Your task to perform on an android device: View the shopping cart on walmart.com. Search for logitech g933 on walmart.com, select the first entry, add it to the cart, then select checkout. Image 0: 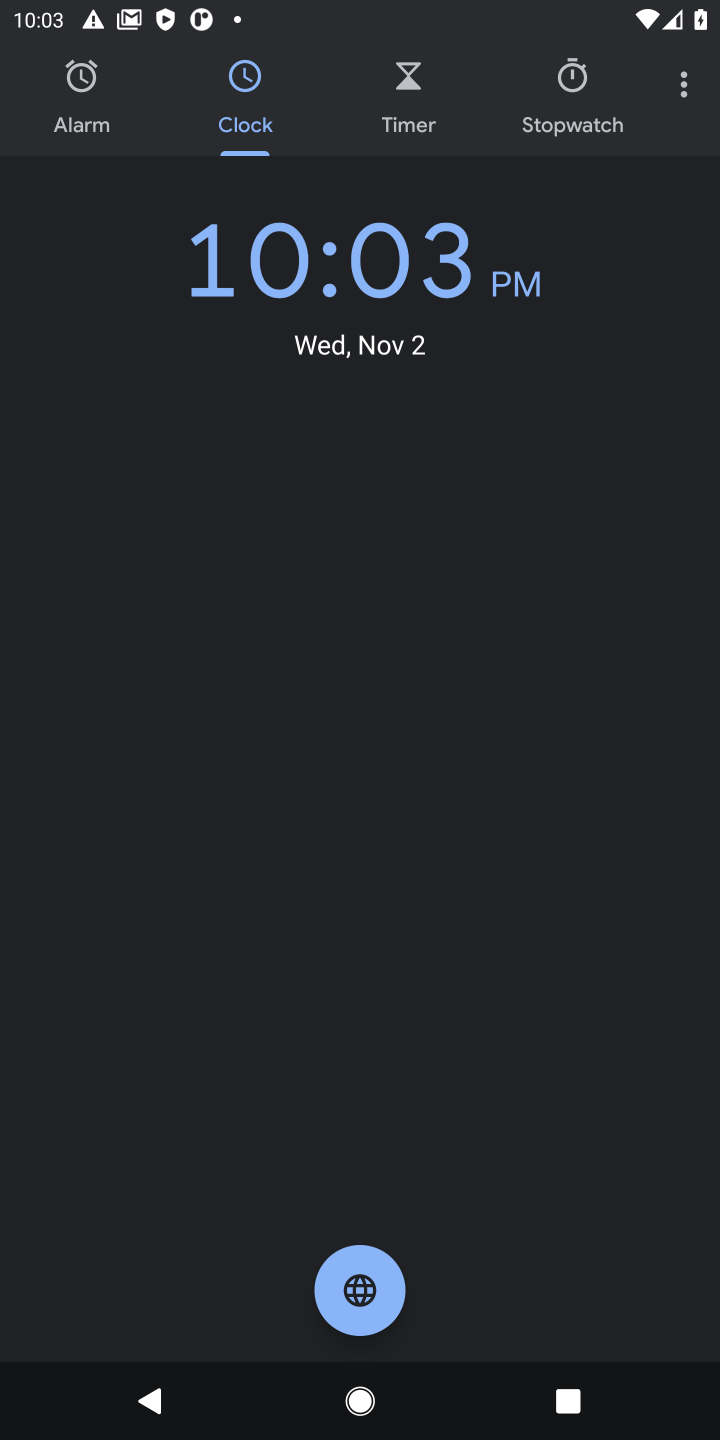
Step 0: press home button
Your task to perform on an android device: View the shopping cart on walmart.com. Search for logitech g933 on walmart.com, select the first entry, add it to the cart, then select checkout. Image 1: 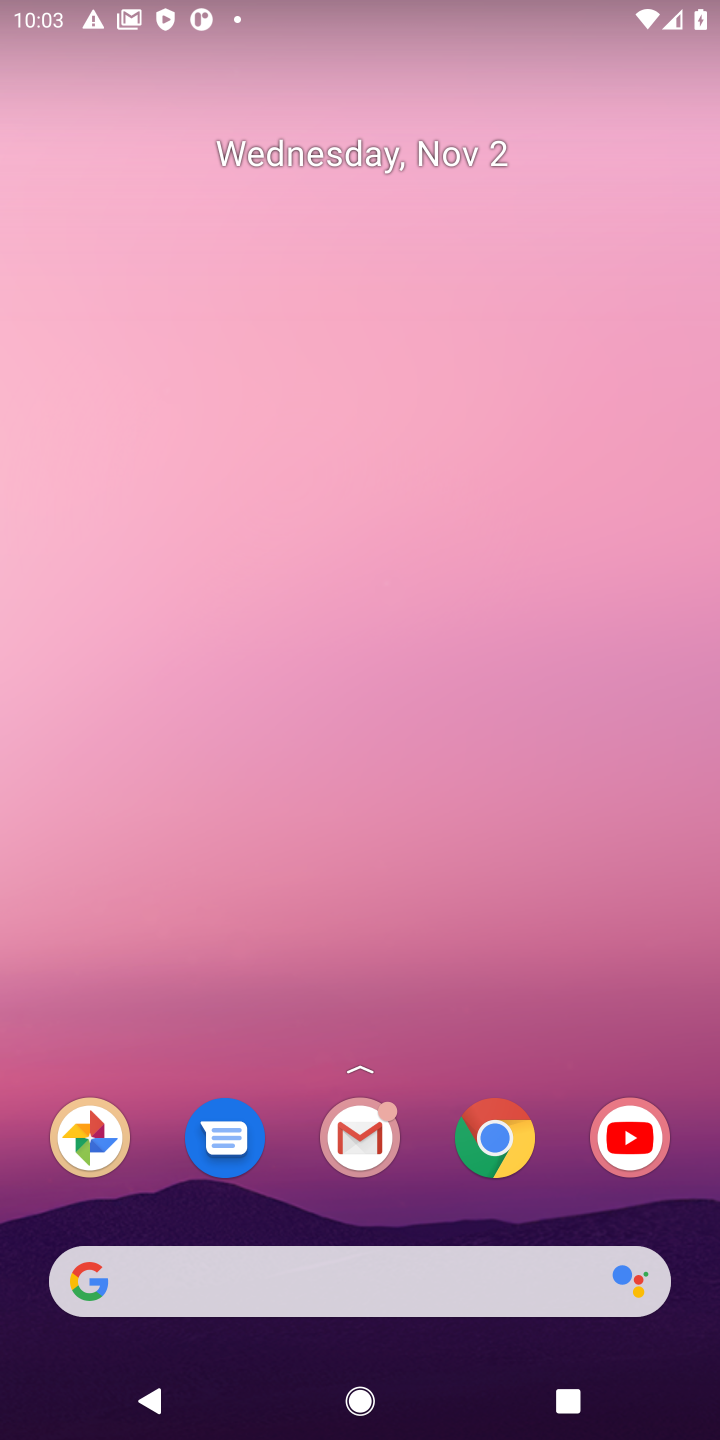
Step 1: click (311, 1267)
Your task to perform on an android device: View the shopping cart on walmart.com. Search for logitech g933 on walmart.com, select the first entry, add it to the cart, then select checkout. Image 2: 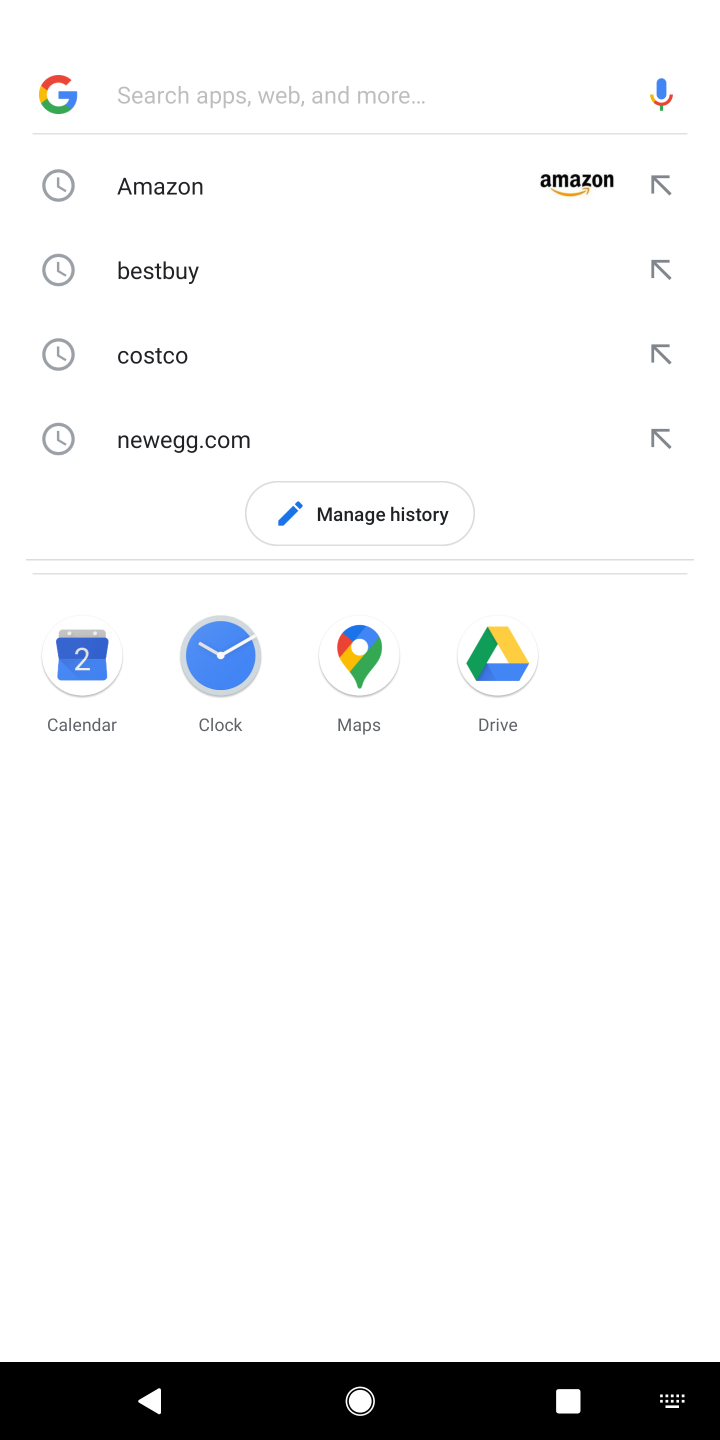
Step 2: type "walmart"
Your task to perform on an android device: View the shopping cart on walmart.com. Search for logitech g933 on walmart.com, select the first entry, add it to the cart, then select checkout. Image 3: 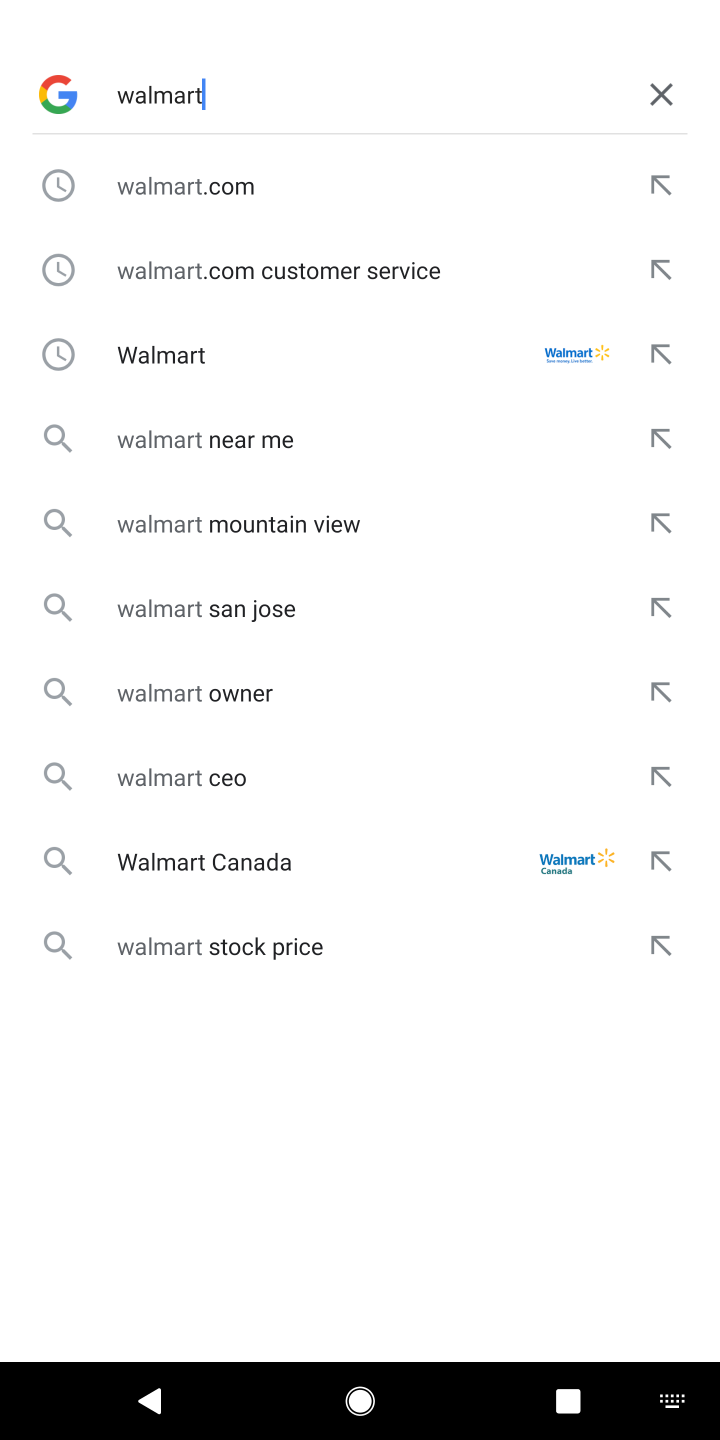
Step 3: click (213, 187)
Your task to perform on an android device: View the shopping cart on walmart.com. Search for logitech g933 on walmart.com, select the first entry, add it to the cart, then select checkout. Image 4: 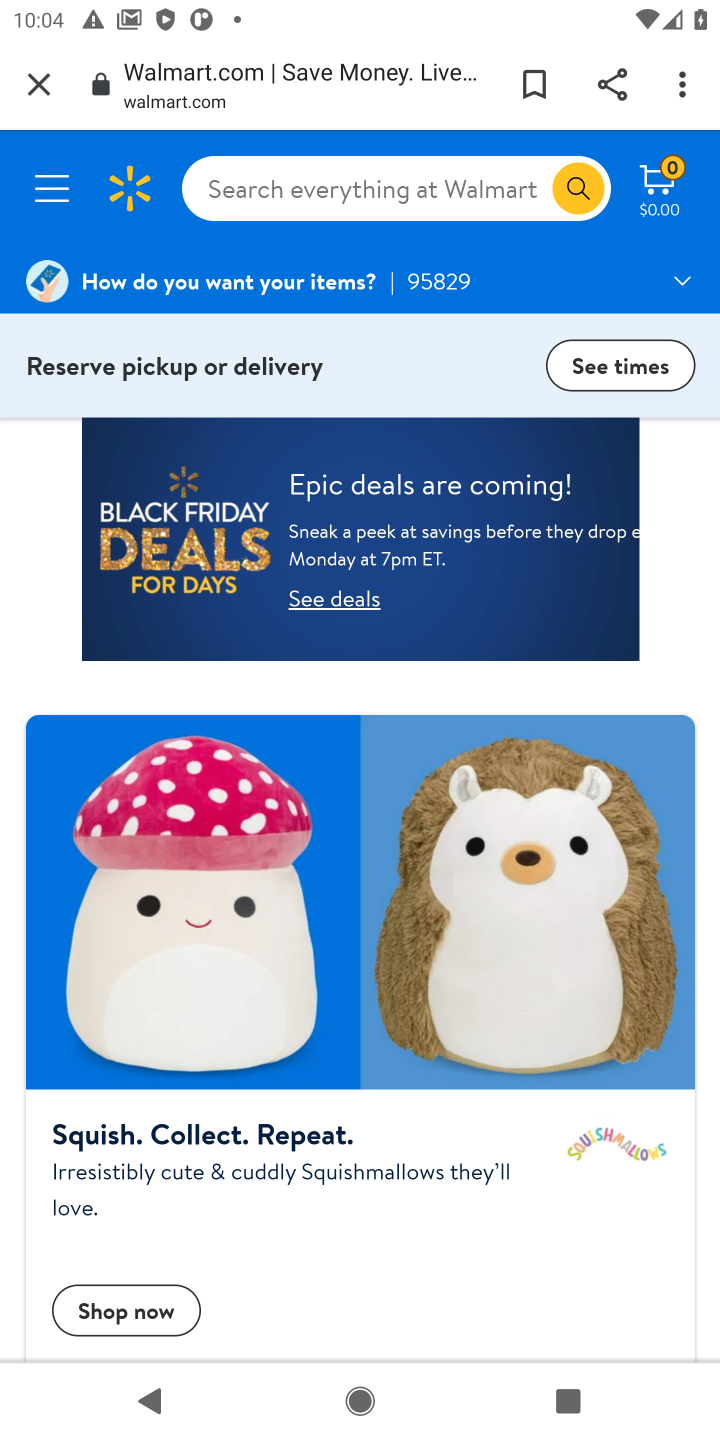
Step 4: click (288, 198)
Your task to perform on an android device: View the shopping cart on walmart.com. Search for logitech g933 on walmart.com, select the first entry, add it to the cart, then select checkout. Image 5: 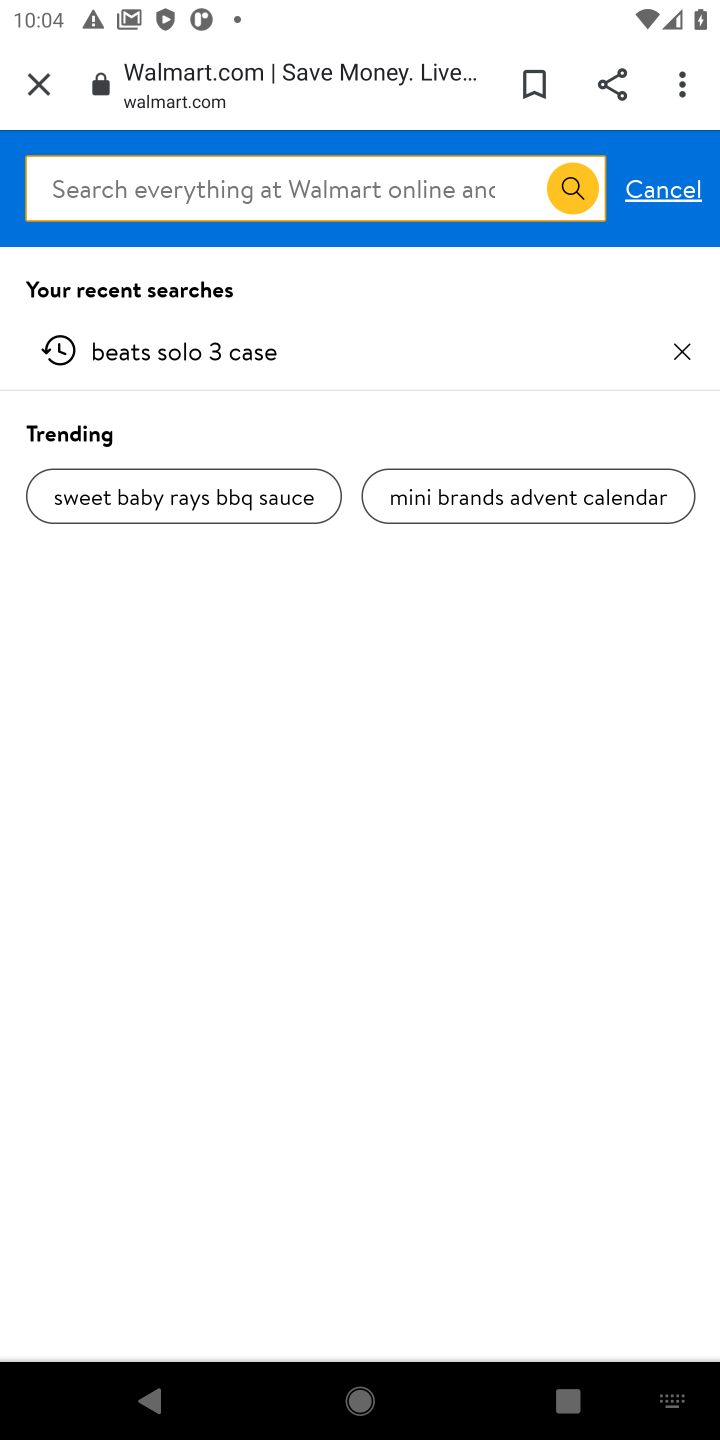
Step 5: type "ogitech g933"
Your task to perform on an android device: View the shopping cart on walmart.com. Search for logitech g933 on walmart.com, select the first entry, add it to the cart, then select checkout. Image 6: 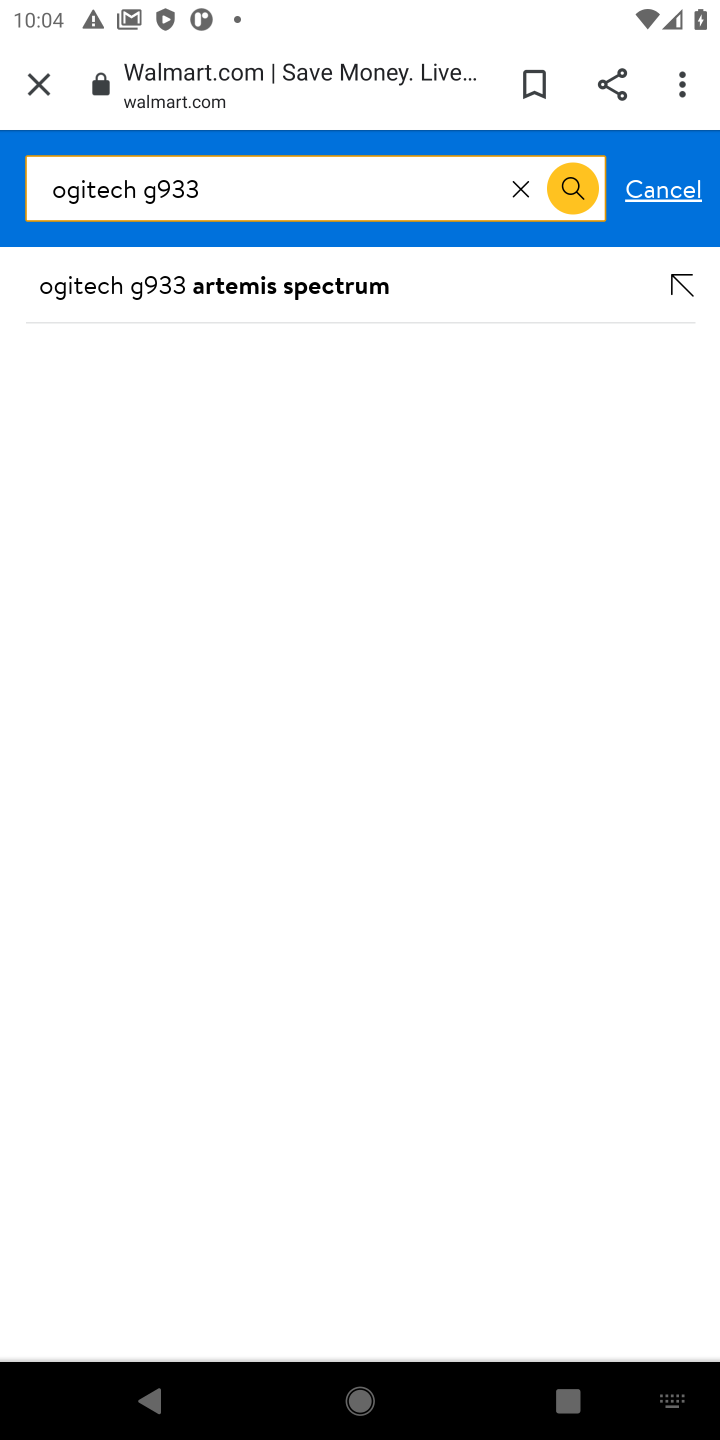
Step 6: click (568, 184)
Your task to perform on an android device: View the shopping cart on walmart.com. Search for logitech g933 on walmart.com, select the first entry, add it to the cart, then select checkout. Image 7: 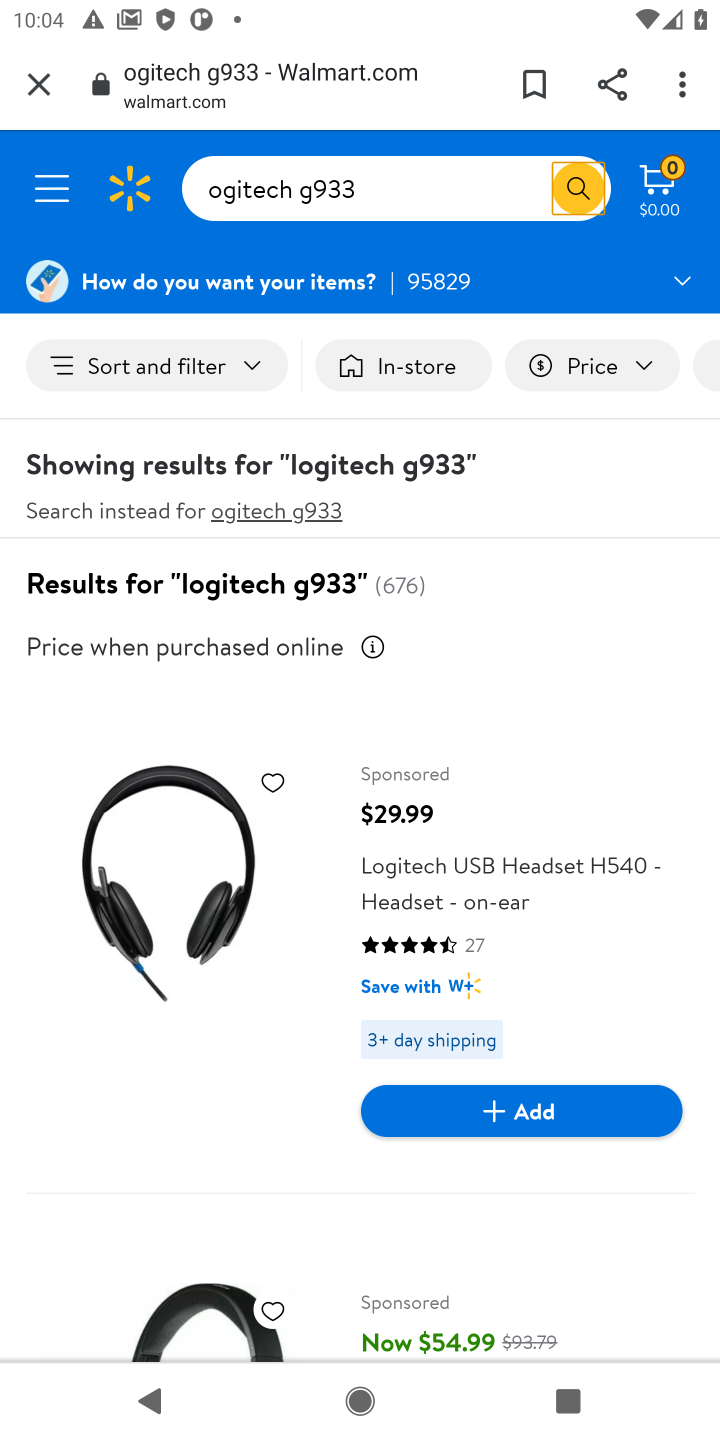
Step 7: click (486, 1105)
Your task to perform on an android device: View the shopping cart on walmart.com. Search for logitech g933 on walmart.com, select the first entry, add it to the cart, then select checkout. Image 8: 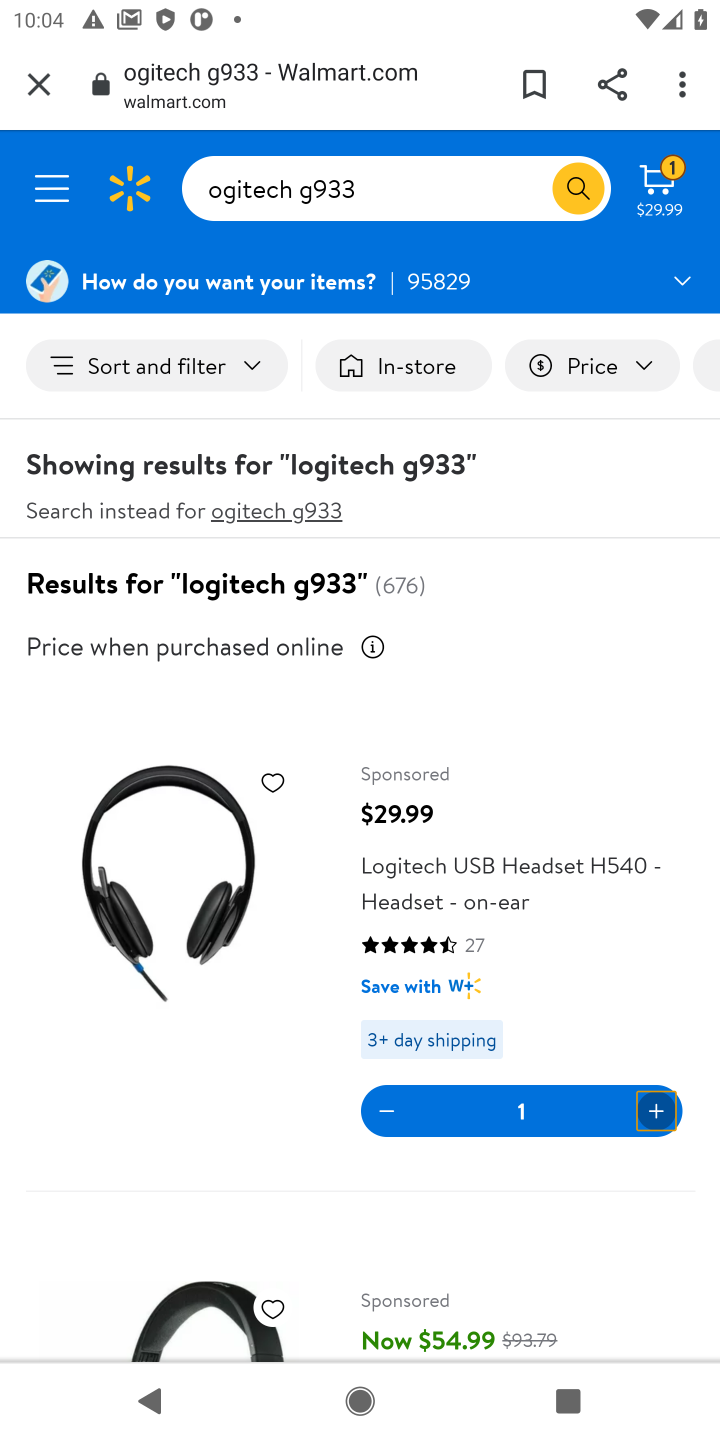
Step 8: click (664, 167)
Your task to perform on an android device: View the shopping cart on walmart.com. Search for logitech g933 on walmart.com, select the first entry, add it to the cart, then select checkout. Image 9: 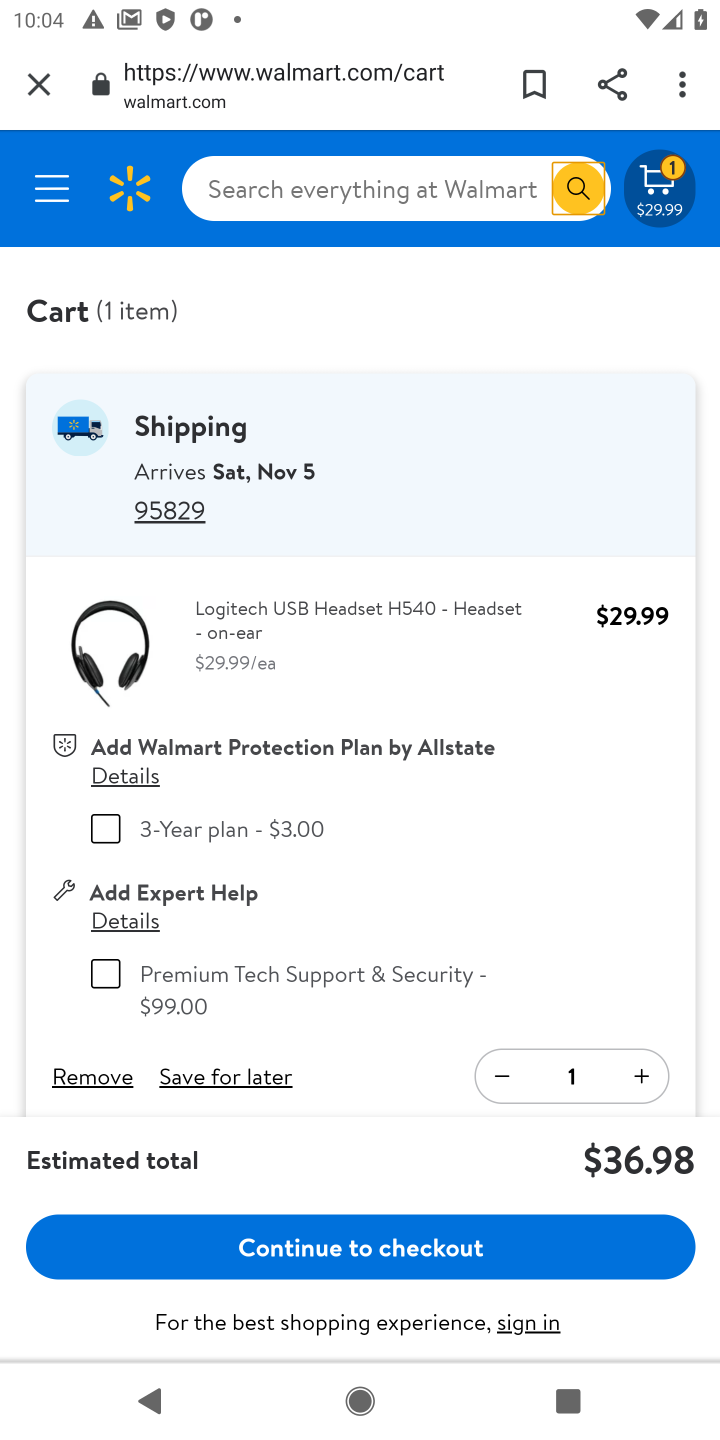
Step 9: click (386, 1243)
Your task to perform on an android device: View the shopping cart on walmart.com. Search for logitech g933 on walmart.com, select the first entry, add it to the cart, then select checkout. Image 10: 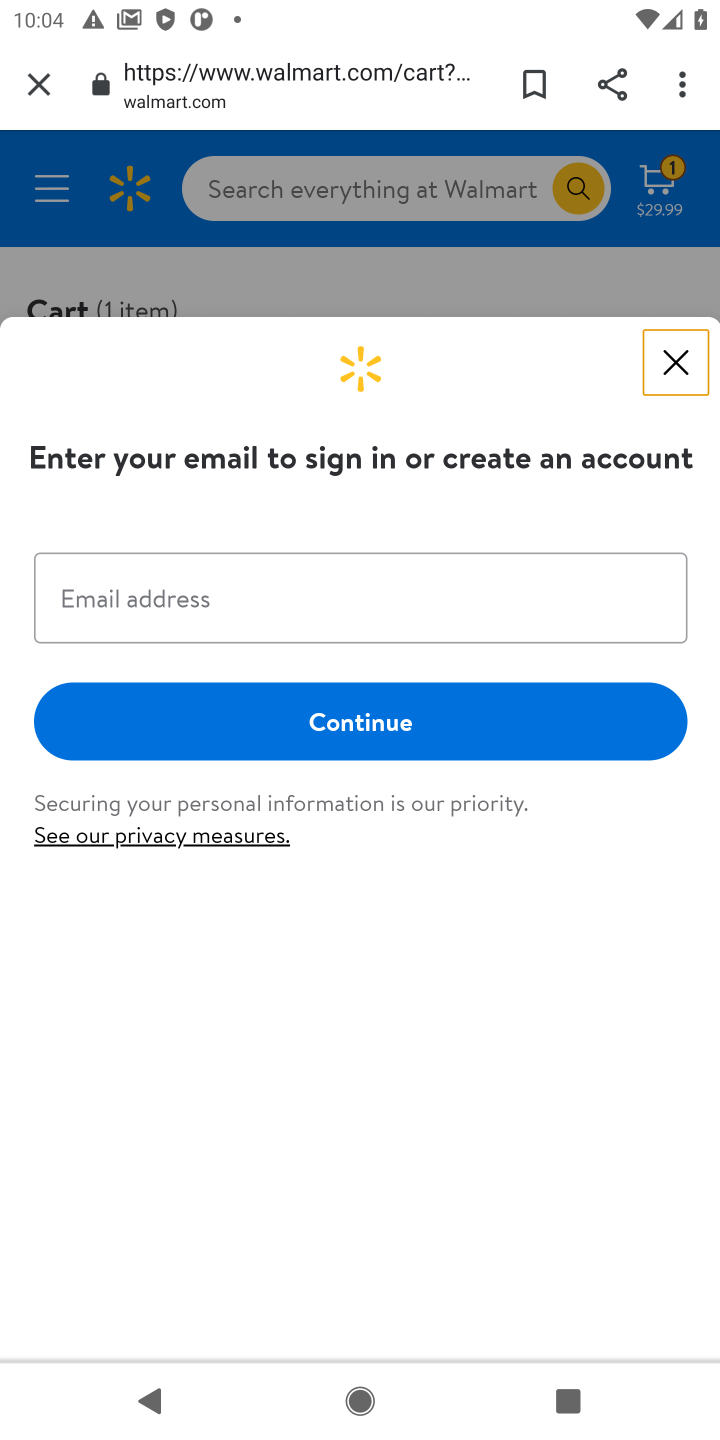
Step 10: task complete